Your task to perform on an android device: Turn on the flashlight Image 0: 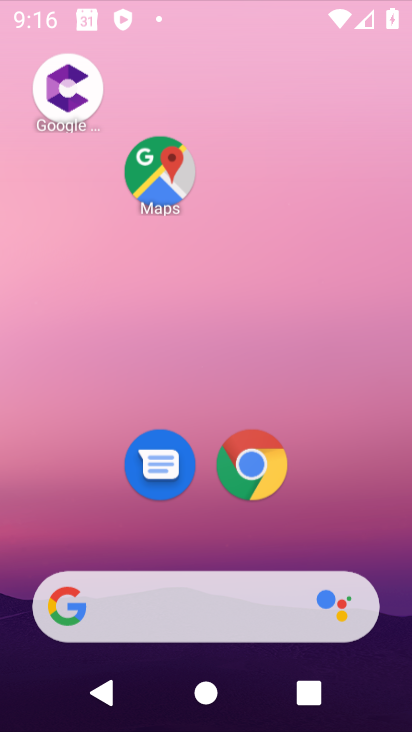
Step 0: click (193, 111)
Your task to perform on an android device: Turn on the flashlight Image 1: 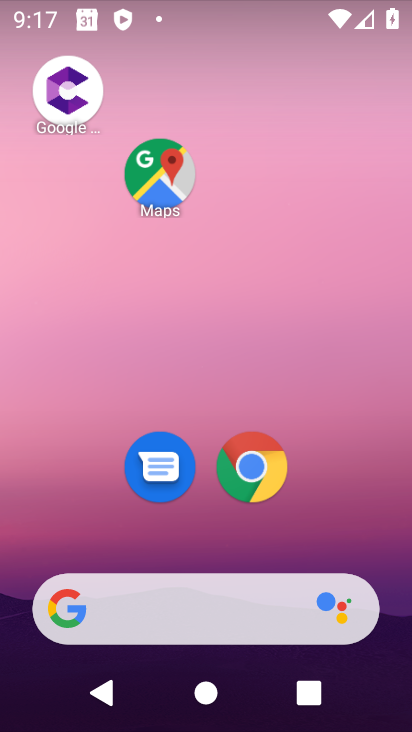
Step 1: click (274, 467)
Your task to perform on an android device: Turn on the flashlight Image 2: 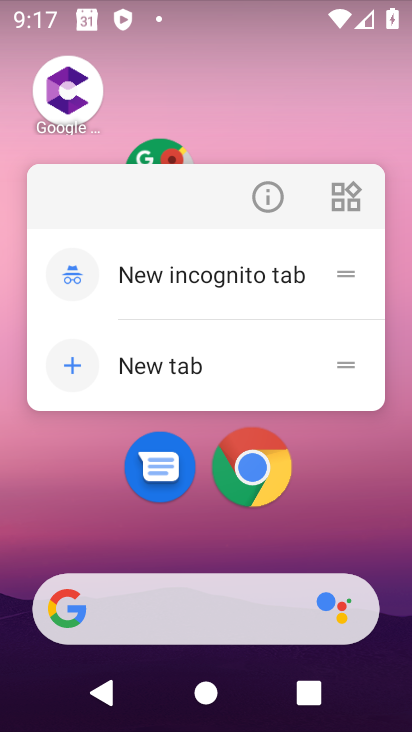
Step 2: drag from (256, 464) to (253, 422)
Your task to perform on an android device: Turn on the flashlight Image 3: 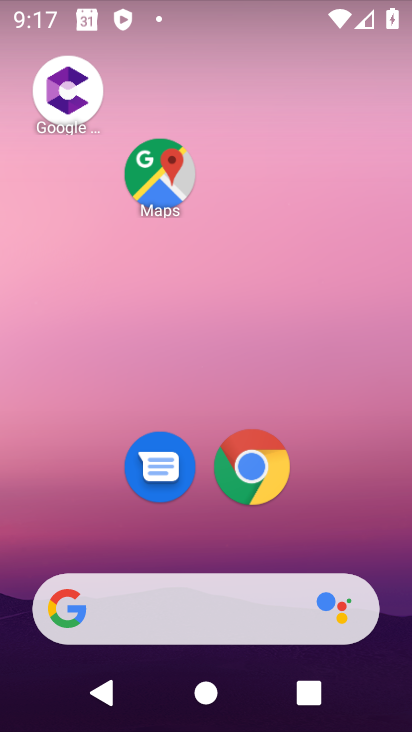
Step 3: click (257, 407)
Your task to perform on an android device: Turn on the flashlight Image 4: 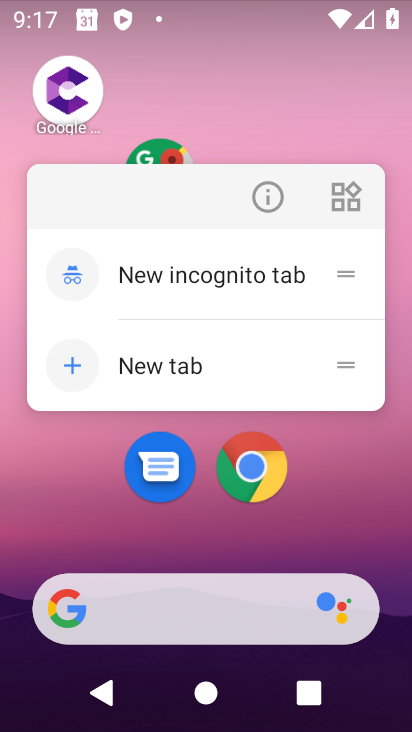
Step 4: click (352, 553)
Your task to perform on an android device: Turn on the flashlight Image 5: 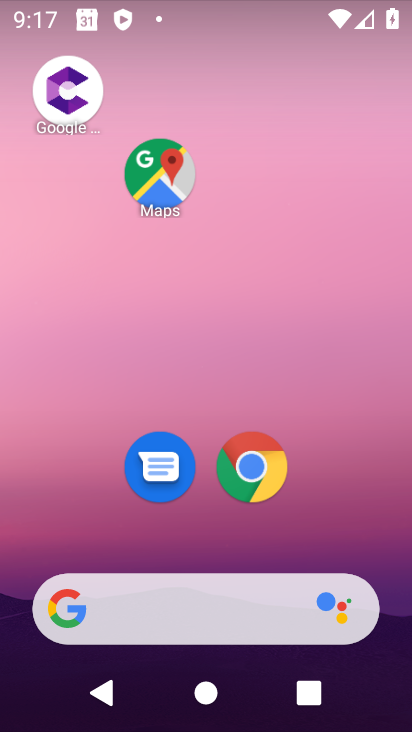
Step 5: click (266, 157)
Your task to perform on an android device: Turn on the flashlight Image 6: 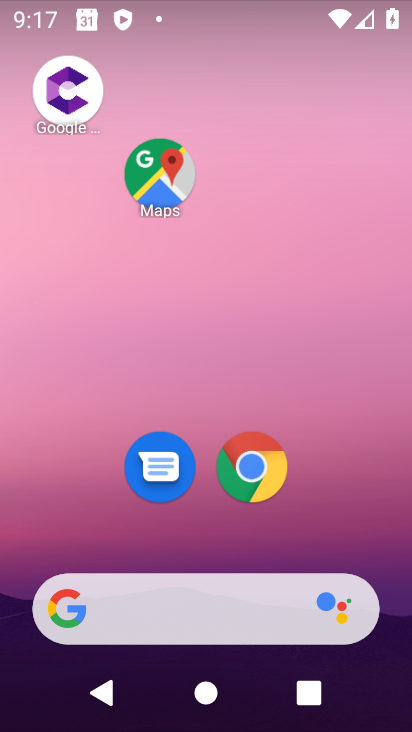
Step 6: task complete